Your task to perform on an android device: turn off airplane mode Image 0: 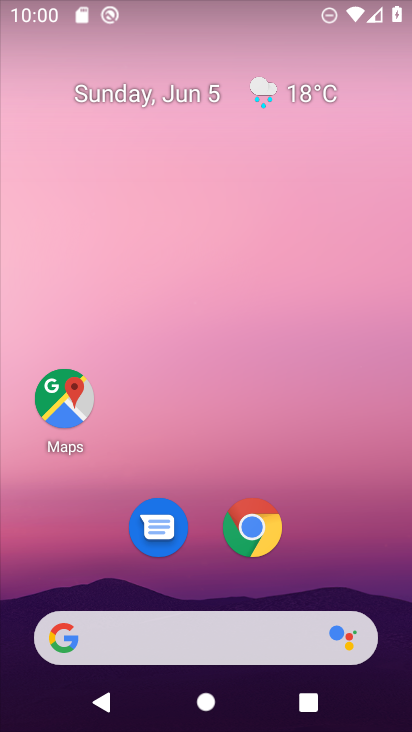
Step 0: drag from (365, 18) to (282, 499)
Your task to perform on an android device: turn off airplane mode Image 1: 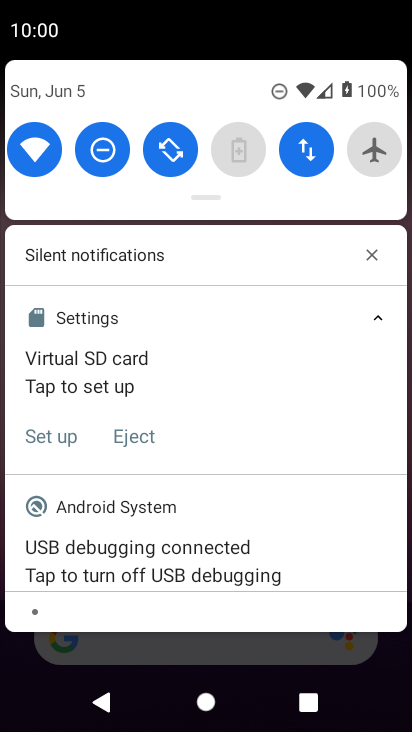
Step 1: task complete